Your task to perform on an android device: toggle notifications settings in the gmail app Image 0: 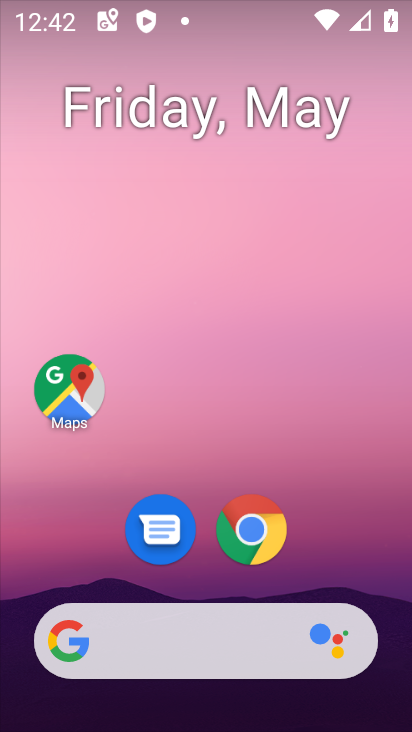
Step 0: drag from (363, 527) to (220, 0)
Your task to perform on an android device: toggle notifications settings in the gmail app Image 1: 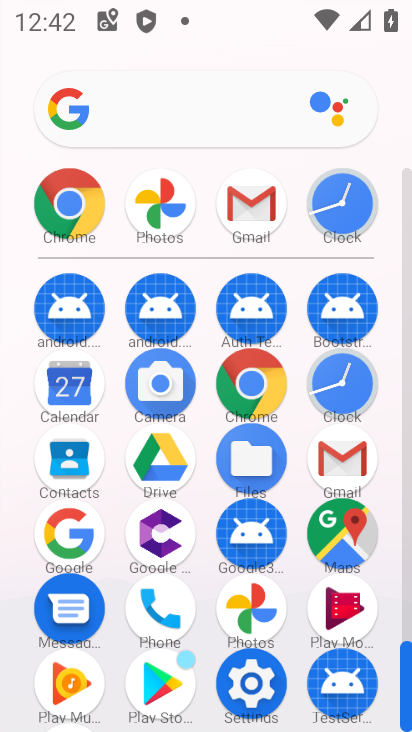
Step 1: click (276, 220)
Your task to perform on an android device: toggle notifications settings in the gmail app Image 2: 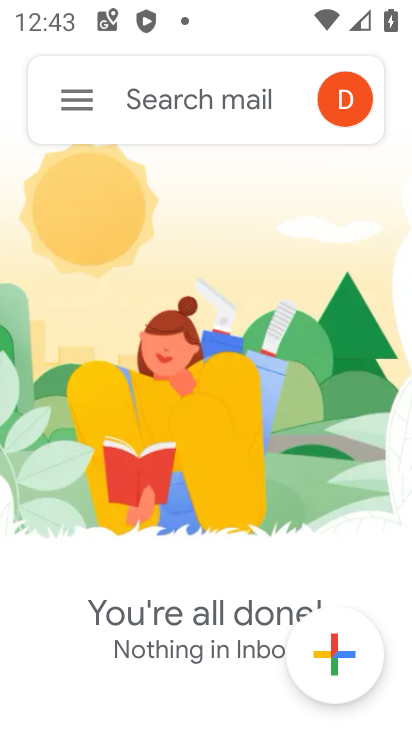
Step 2: click (78, 110)
Your task to perform on an android device: toggle notifications settings in the gmail app Image 3: 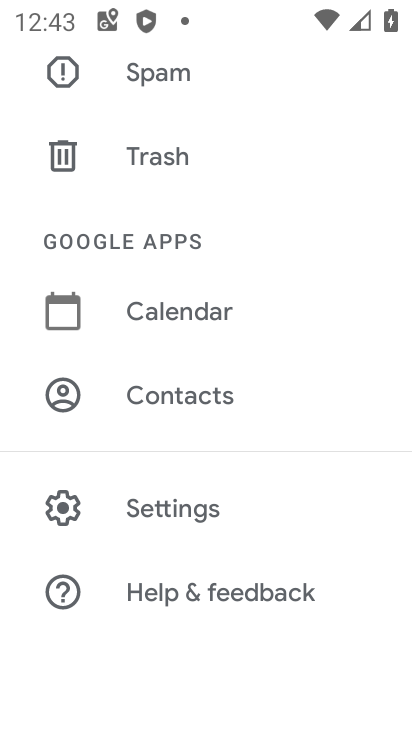
Step 3: click (150, 509)
Your task to perform on an android device: toggle notifications settings in the gmail app Image 4: 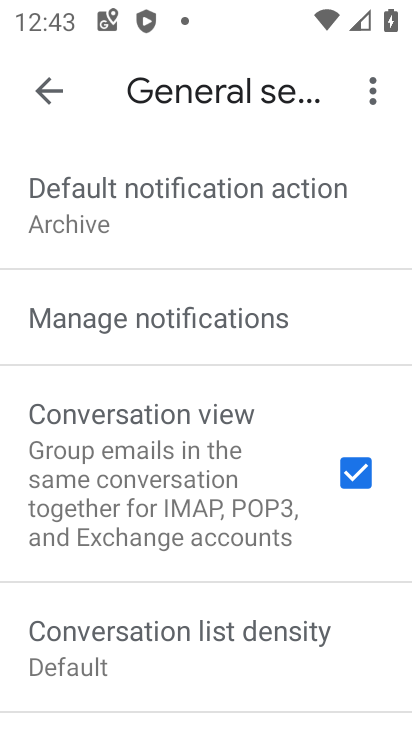
Step 4: task complete